Your task to perform on an android device: What's on my calendar today? Image 0: 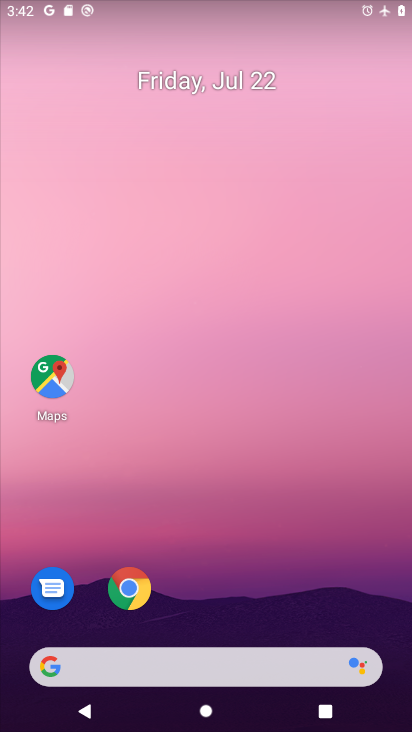
Step 0: drag from (249, 603) to (289, 34)
Your task to perform on an android device: What's on my calendar today? Image 1: 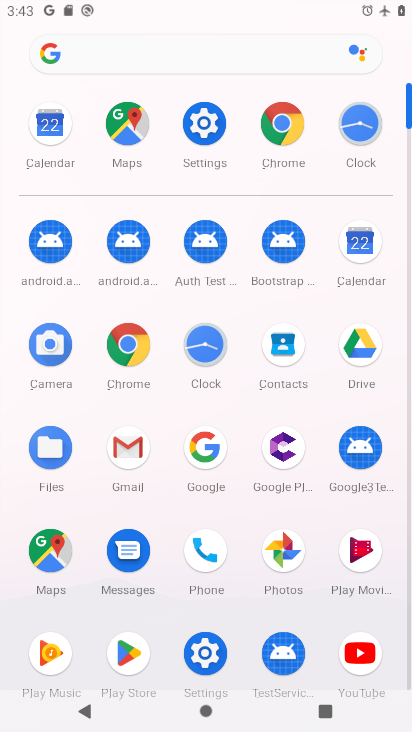
Step 1: click (363, 234)
Your task to perform on an android device: What's on my calendar today? Image 2: 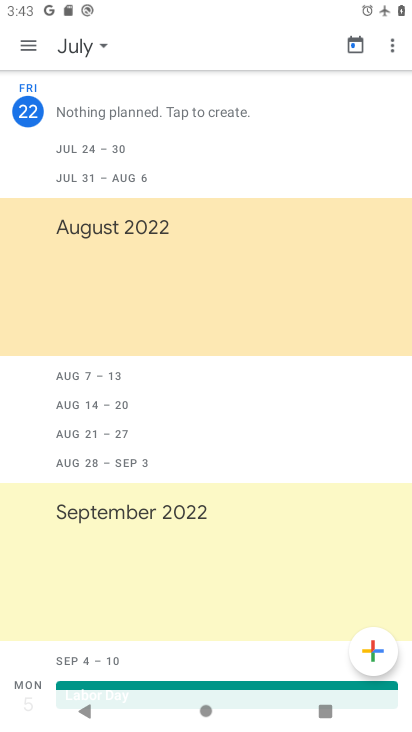
Step 2: click (81, 44)
Your task to perform on an android device: What's on my calendar today? Image 3: 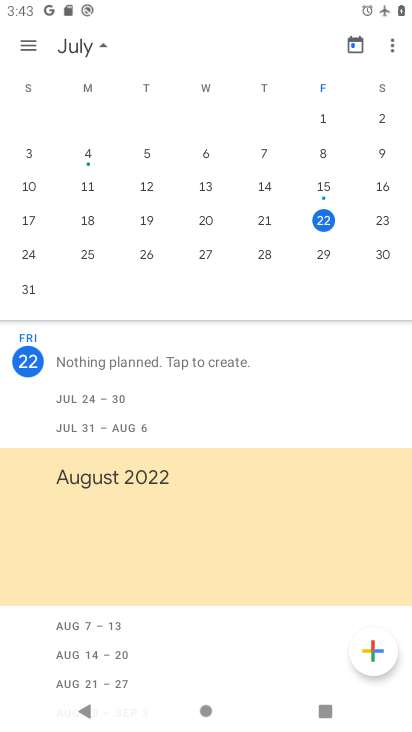
Step 3: click (323, 214)
Your task to perform on an android device: What's on my calendar today? Image 4: 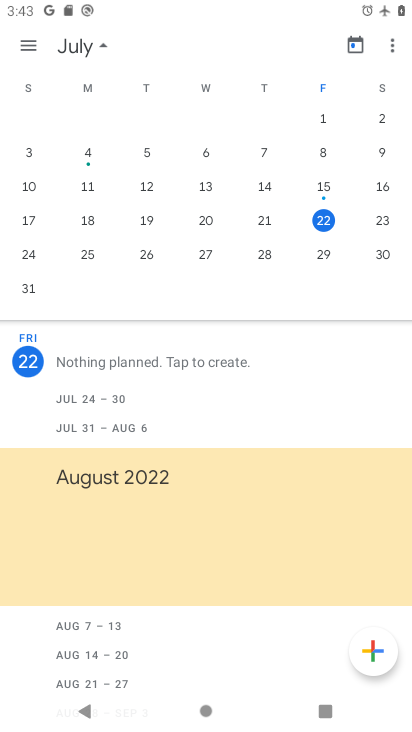
Step 4: task complete